Your task to perform on an android device: move an email to a new category in the gmail app Image 0: 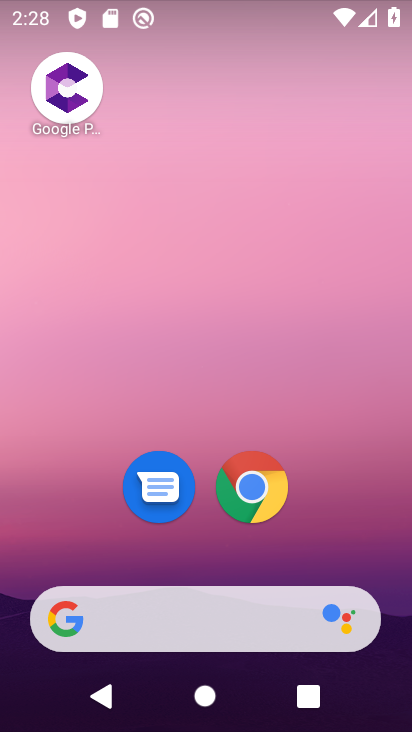
Step 0: drag from (172, 434) to (220, 23)
Your task to perform on an android device: move an email to a new category in the gmail app Image 1: 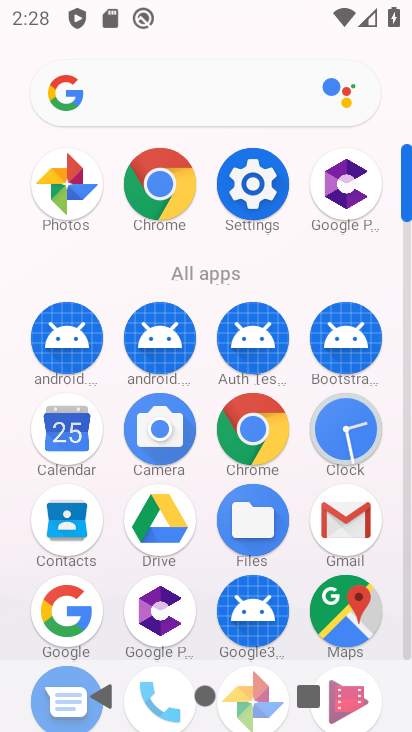
Step 1: click (349, 515)
Your task to perform on an android device: move an email to a new category in the gmail app Image 2: 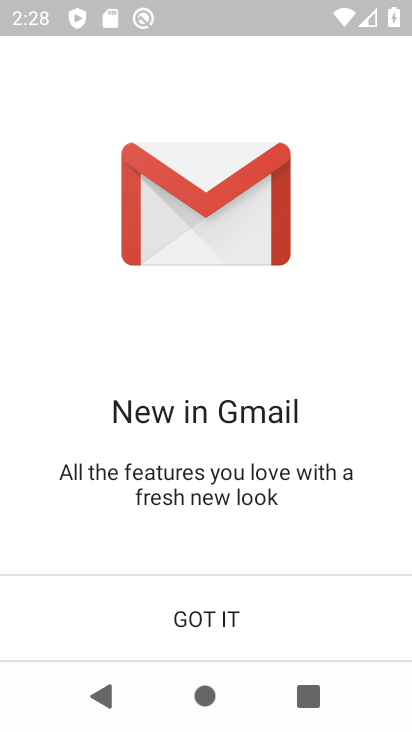
Step 2: click (203, 601)
Your task to perform on an android device: move an email to a new category in the gmail app Image 3: 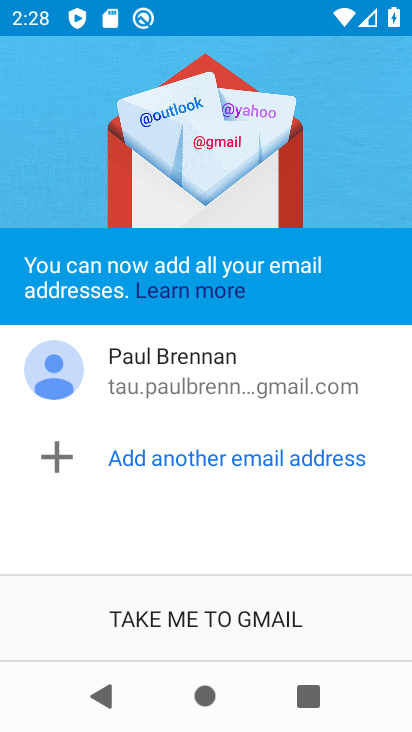
Step 3: click (203, 617)
Your task to perform on an android device: move an email to a new category in the gmail app Image 4: 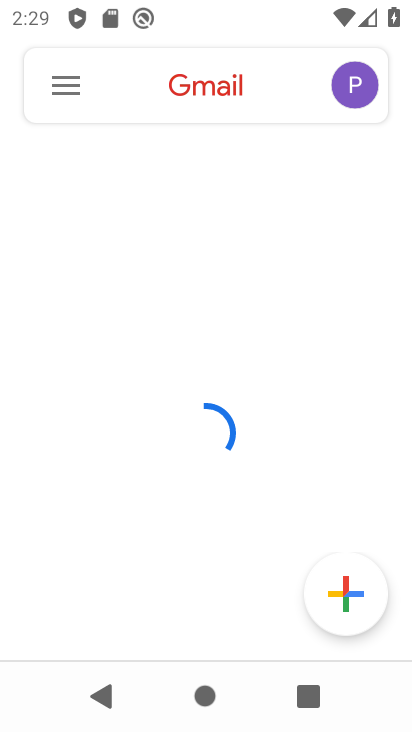
Step 4: click (60, 88)
Your task to perform on an android device: move an email to a new category in the gmail app Image 5: 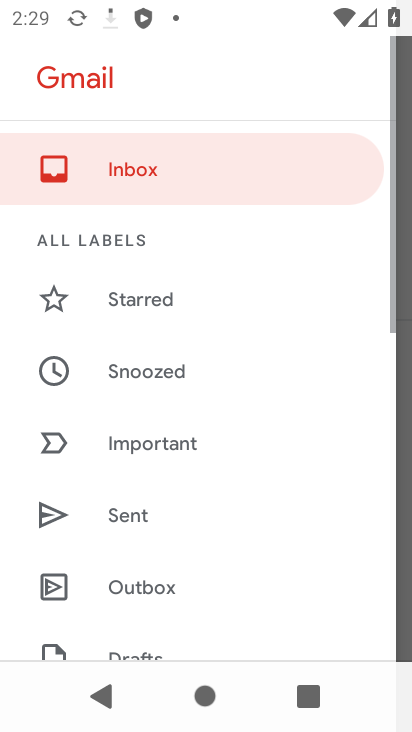
Step 5: drag from (169, 611) to (280, 68)
Your task to perform on an android device: move an email to a new category in the gmail app Image 6: 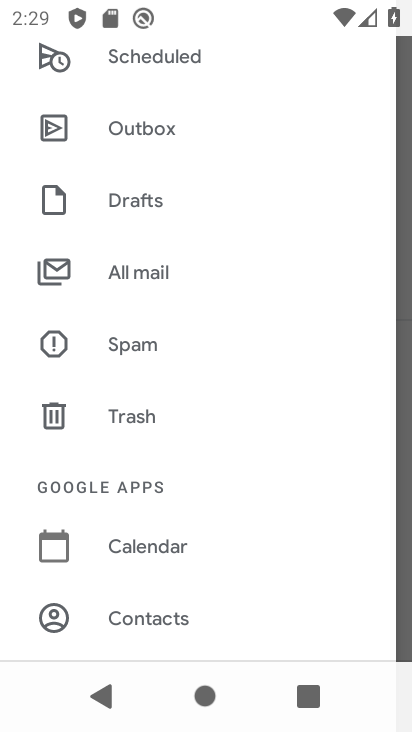
Step 6: click (170, 272)
Your task to perform on an android device: move an email to a new category in the gmail app Image 7: 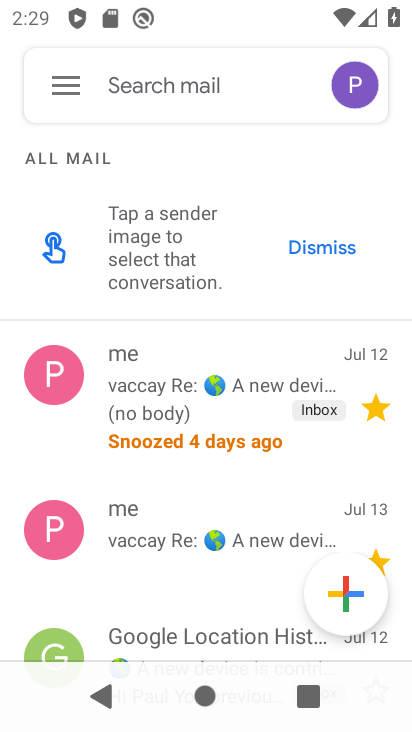
Step 7: click (141, 379)
Your task to perform on an android device: move an email to a new category in the gmail app Image 8: 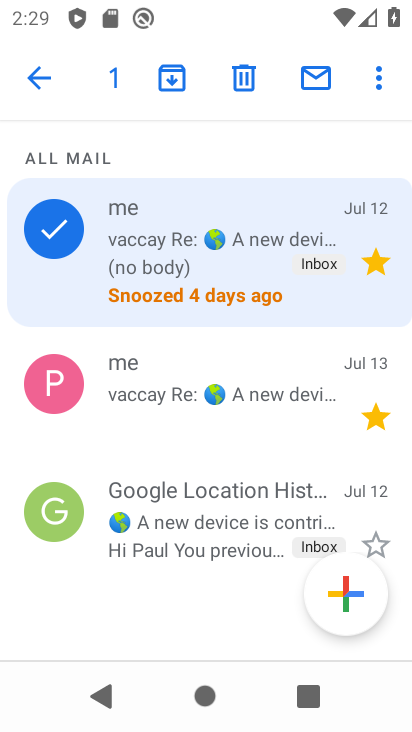
Step 8: click (170, 394)
Your task to perform on an android device: move an email to a new category in the gmail app Image 9: 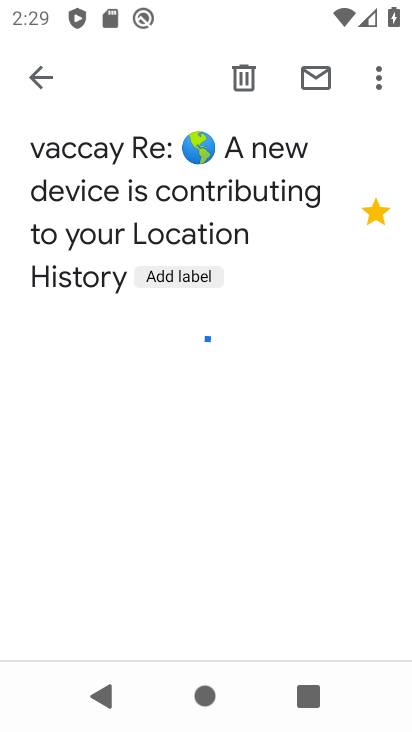
Step 9: click (141, 228)
Your task to perform on an android device: move an email to a new category in the gmail app Image 10: 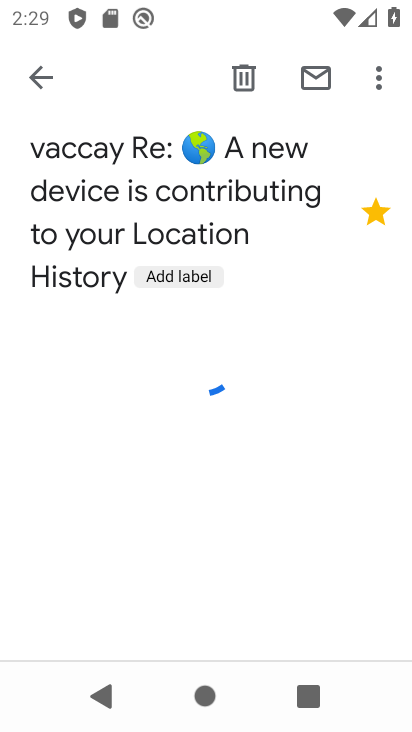
Step 10: click (36, 55)
Your task to perform on an android device: move an email to a new category in the gmail app Image 11: 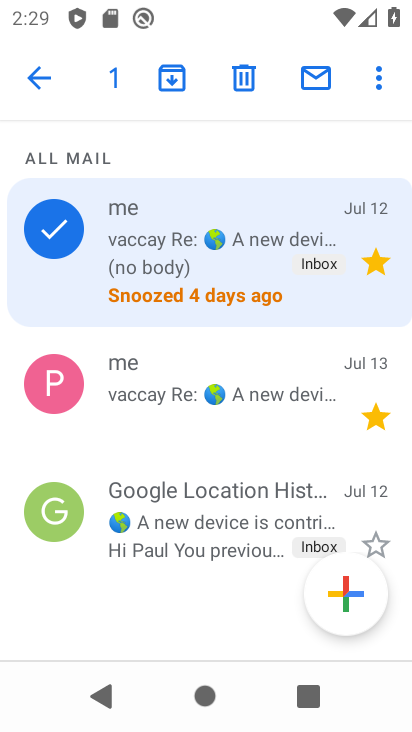
Step 11: click (96, 230)
Your task to perform on an android device: move an email to a new category in the gmail app Image 12: 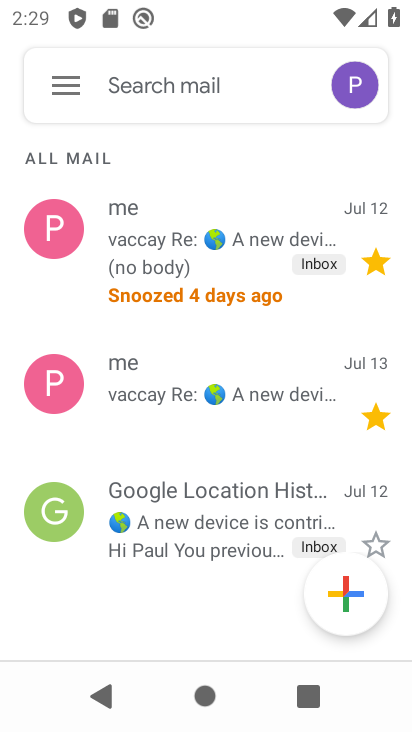
Step 12: click (215, 367)
Your task to perform on an android device: move an email to a new category in the gmail app Image 13: 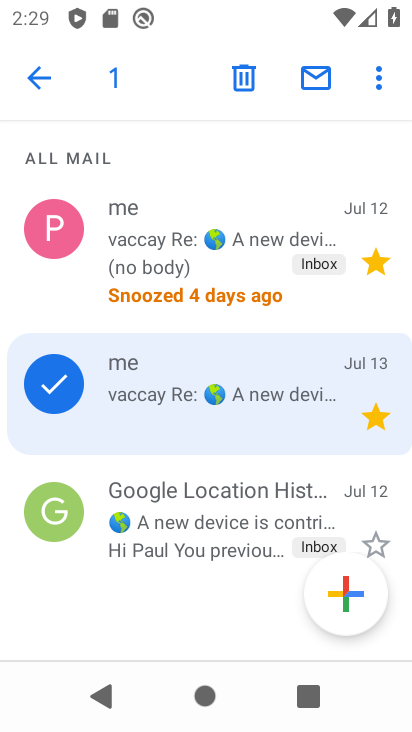
Step 13: click (369, 72)
Your task to perform on an android device: move an email to a new category in the gmail app Image 14: 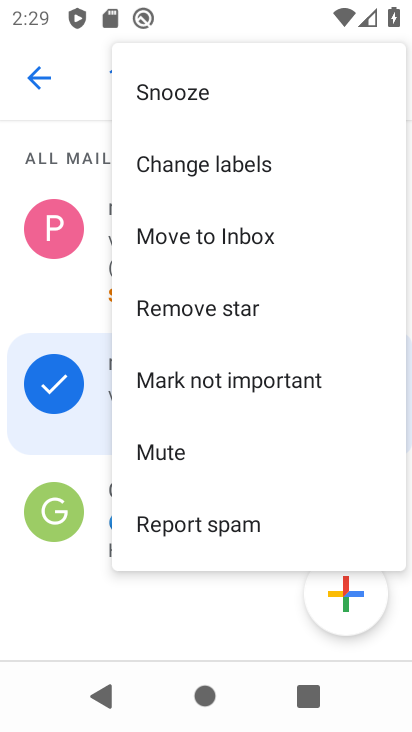
Step 14: click (227, 228)
Your task to perform on an android device: move an email to a new category in the gmail app Image 15: 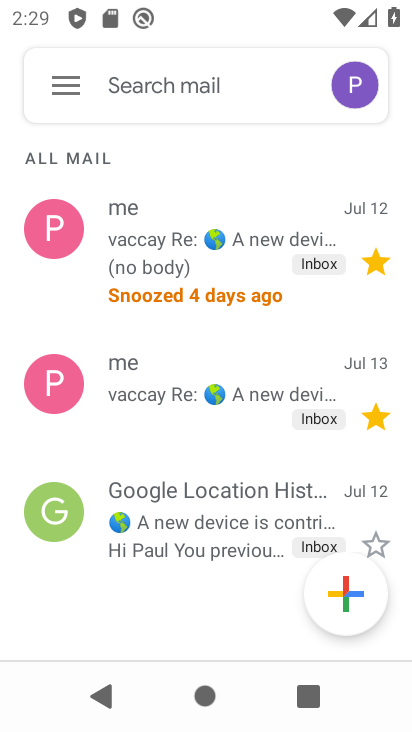
Step 15: task complete